Your task to perform on an android device: What's the weather going to be tomorrow? Image 0: 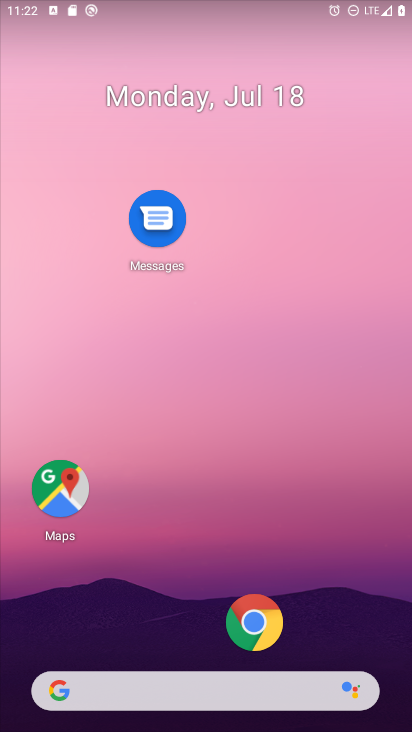
Step 0: drag from (240, 670) to (230, 170)
Your task to perform on an android device: What's the weather going to be tomorrow? Image 1: 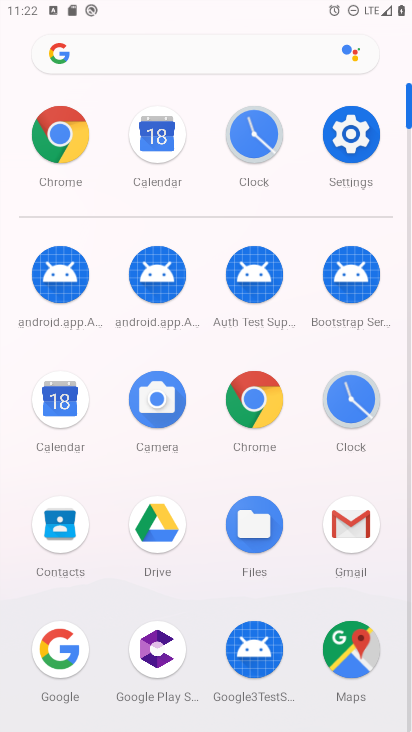
Step 1: click (66, 656)
Your task to perform on an android device: What's the weather going to be tomorrow? Image 2: 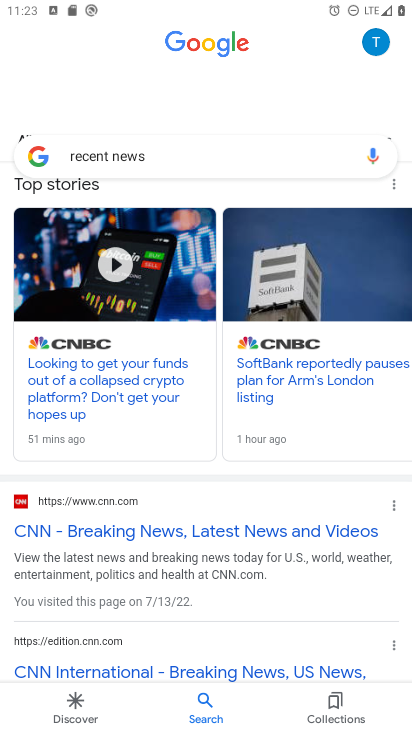
Step 2: click (246, 161)
Your task to perform on an android device: What's the weather going to be tomorrow? Image 3: 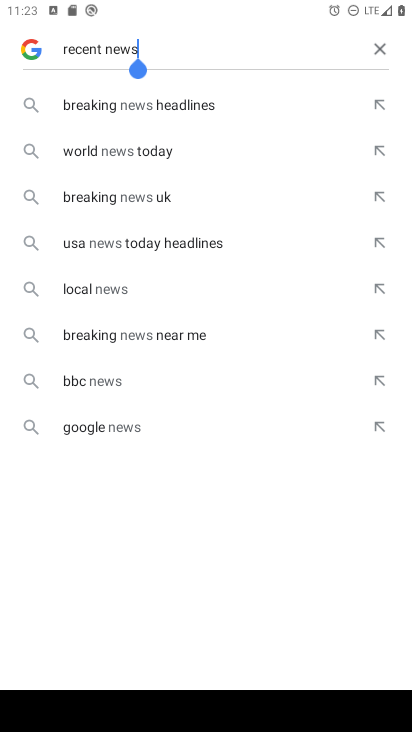
Step 3: click (378, 52)
Your task to perform on an android device: What's the weather going to be tomorrow? Image 4: 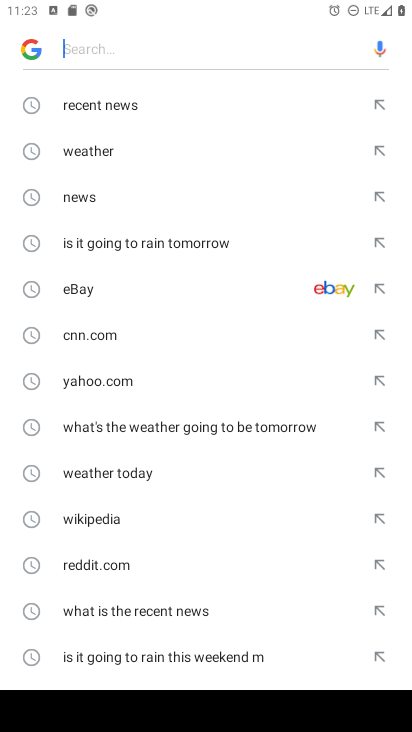
Step 4: click (146, 157)
Your task to perform on an android device: What's the weather going to be tomorrow? Image 5: 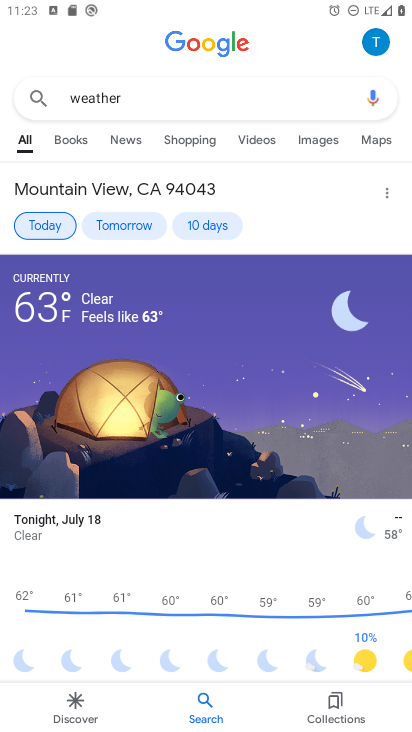
Step 5: click (124, 236)
Your task to perform on an android device: What's the weather going to be tomorrow? Image 6: 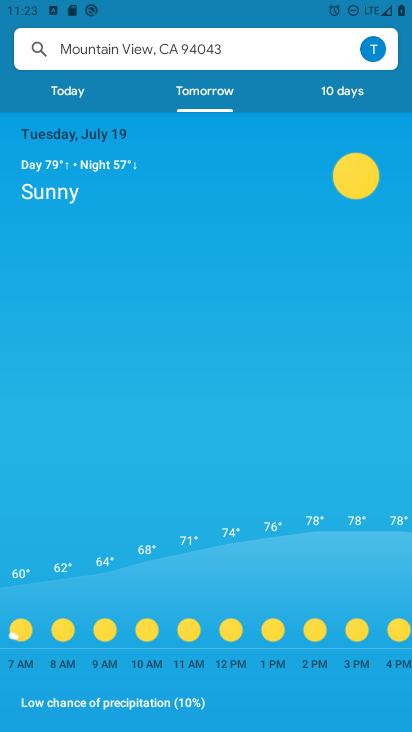
Step 6: task complete